Your task to perform on an android device: Search for seafood restaurants on Google Maps Image 0: 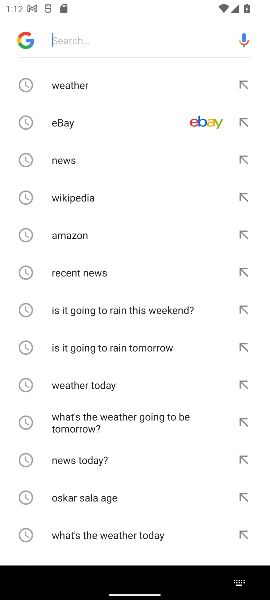
Step 0: task complete